Your task to perform on an android device: Open Chrome and go to the settings page Image 0: 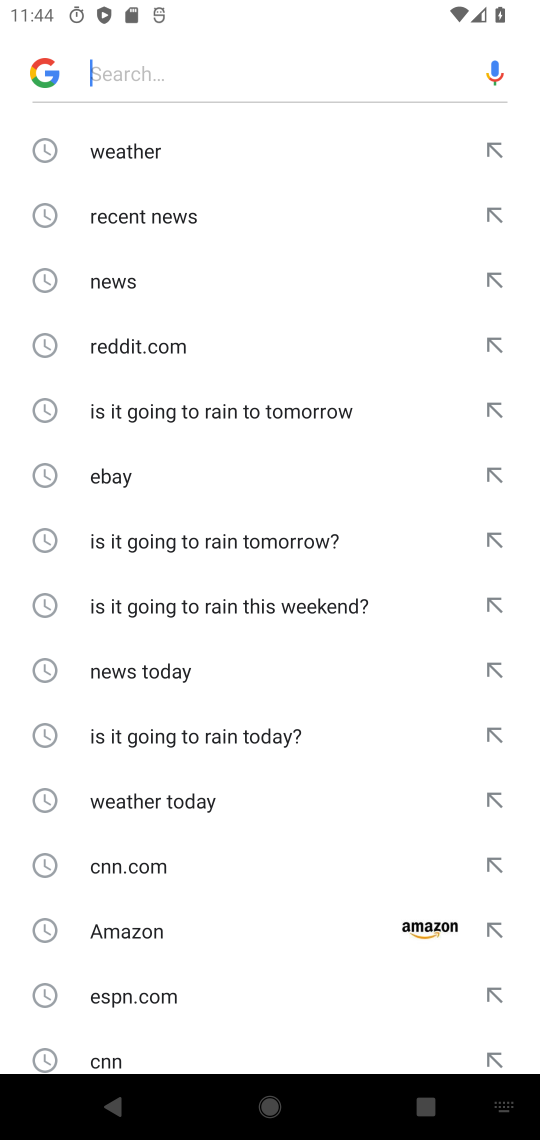
Step 0: press home button
Your task to perform on an android device: Open Chrome and go to the settings page Image 1: 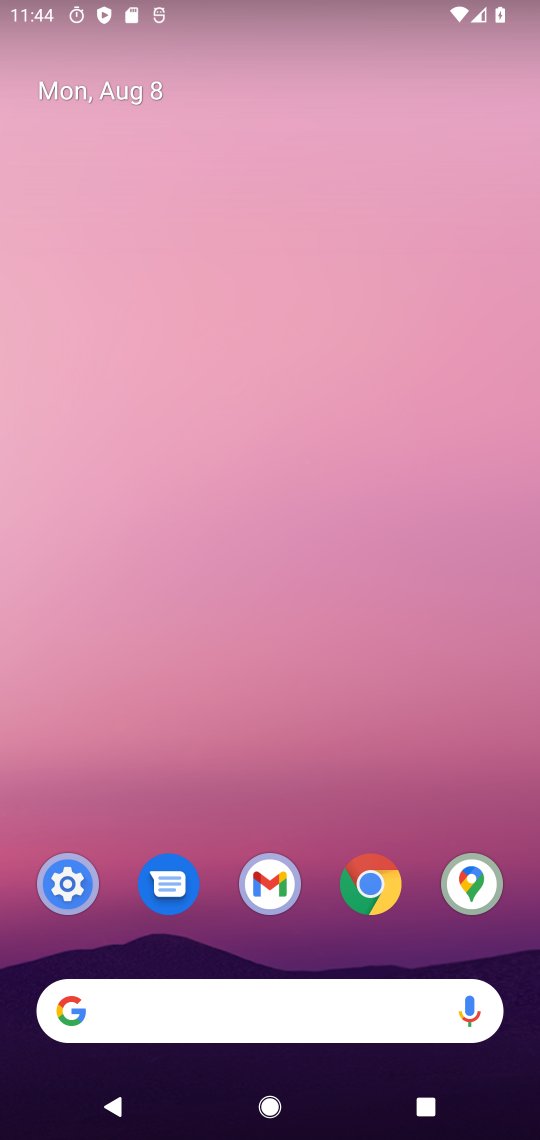
Step 1: click (371, 880)
Your task to perform on an android device: Open Chrome and go to the settings page Image 2: 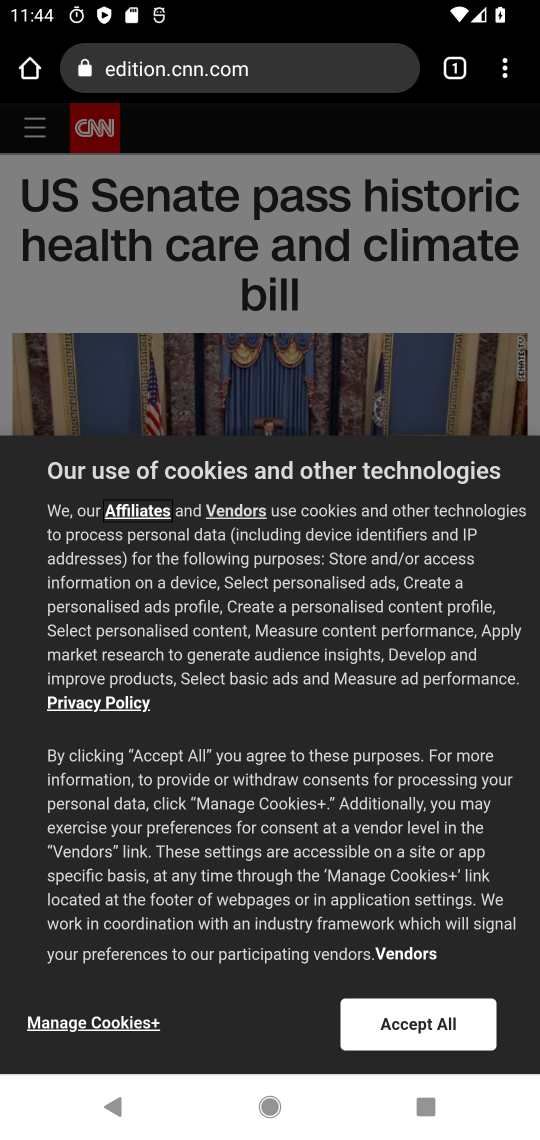
Step 2: click (514, 73)
Your task to perform on an android device: Open Chrome and go to the settings page Image 3: 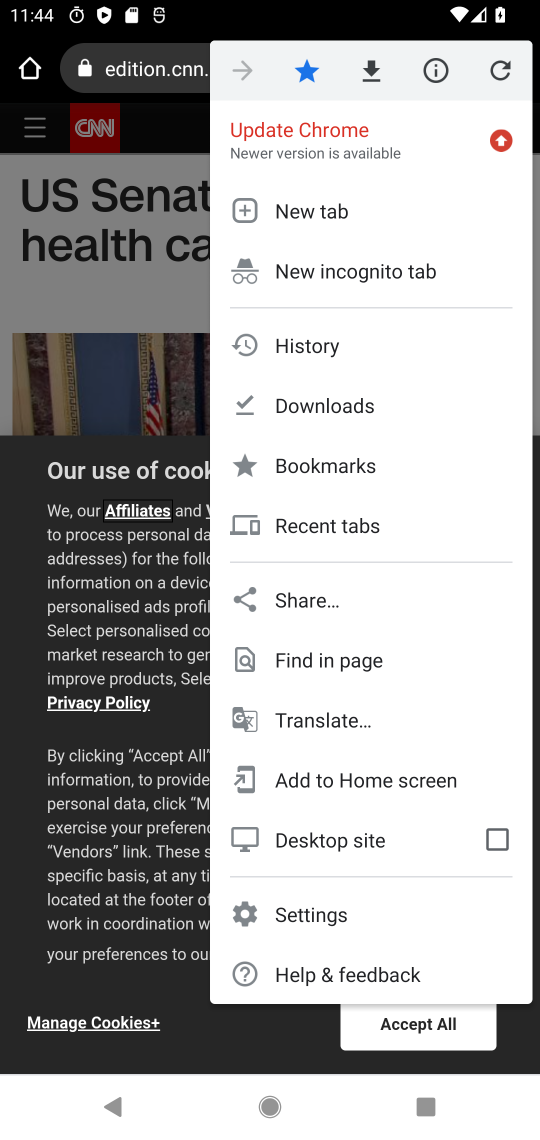
Step 3: click (298, 924)
Your task to perform on an android device: Open Chrome and go to the settings page Image 4: 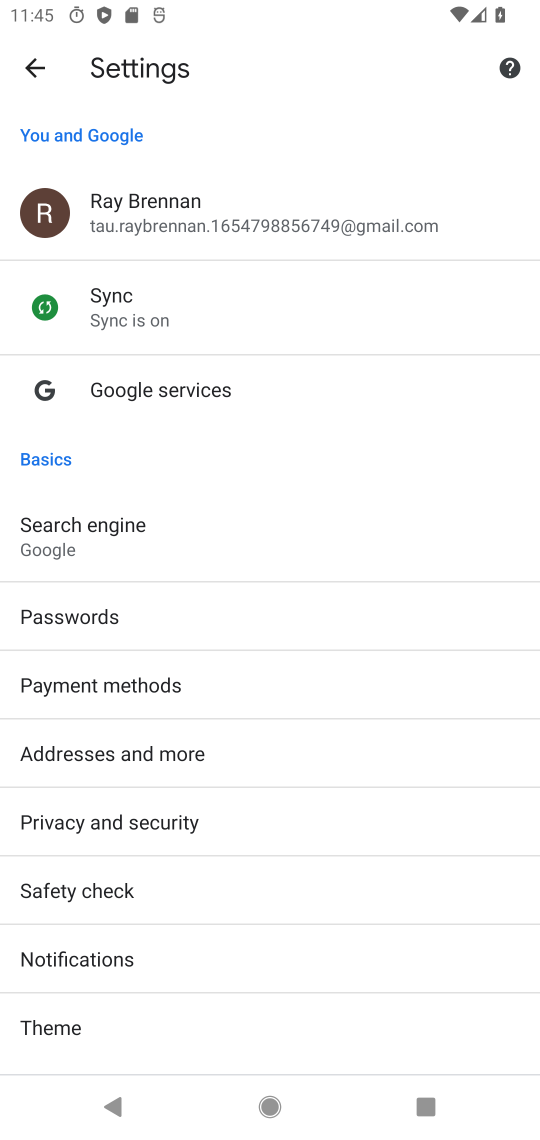
Step 4: task complete